Your task to perform on an android device: Open display settings Image 0: 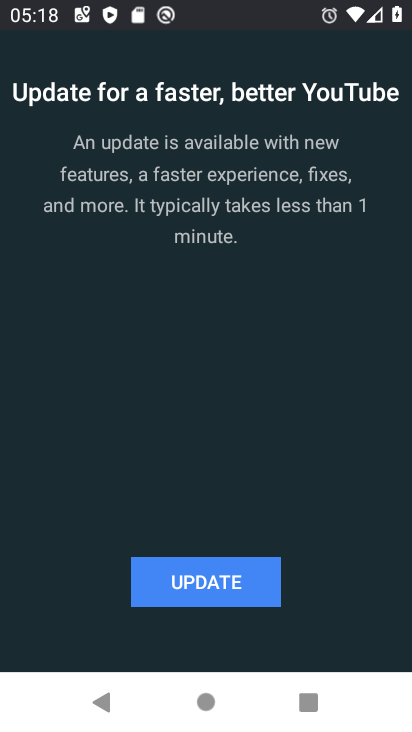
Step 0: press back button
Your task to perform on an android device: Open display settings Image 1: 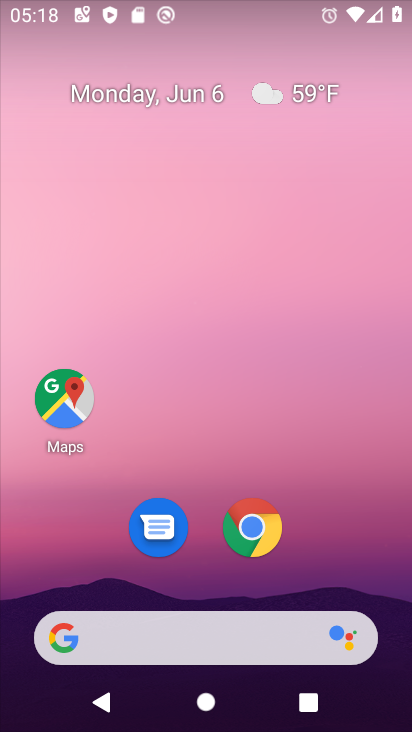
Step 1: drag from (390, 668) to (331, 84)
Your task to perform on an android device: Open display settings Image 2: 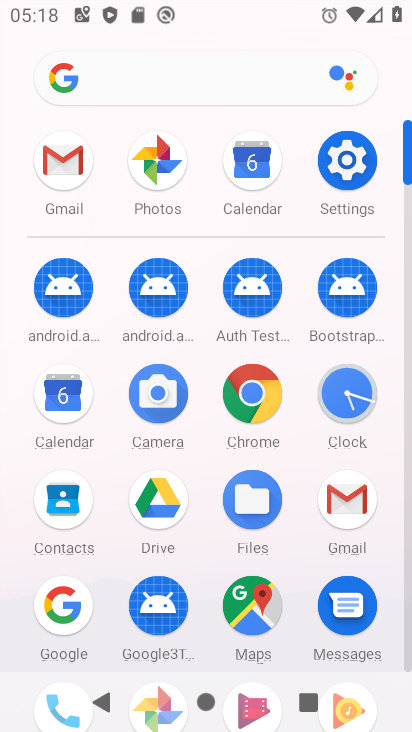
Step 2: click (340, 148)
Your task to perform on an android device: Open display settings Image 3: 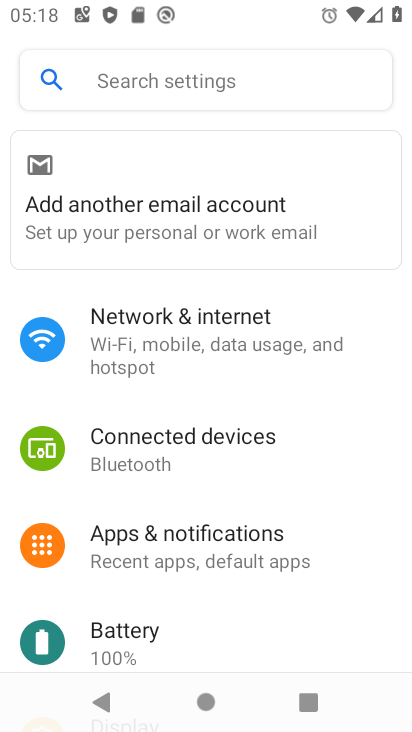
Step 3: click (143, 594)
Your task to perform on an android device: Open display settings Image 4: 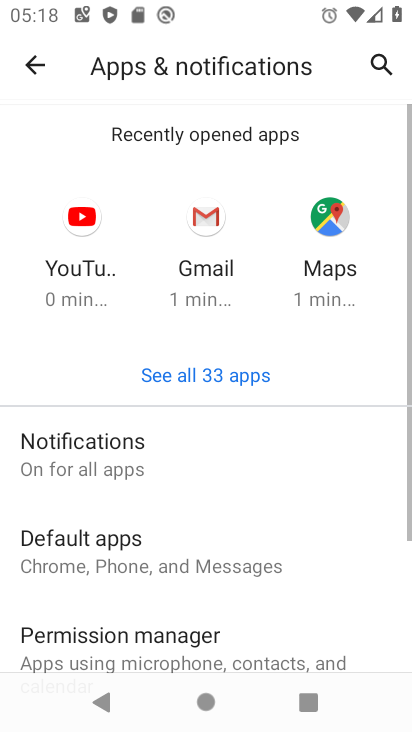
Step 4: click (39, 65)
Your task to perform on an android device: Open display settings Image 5: 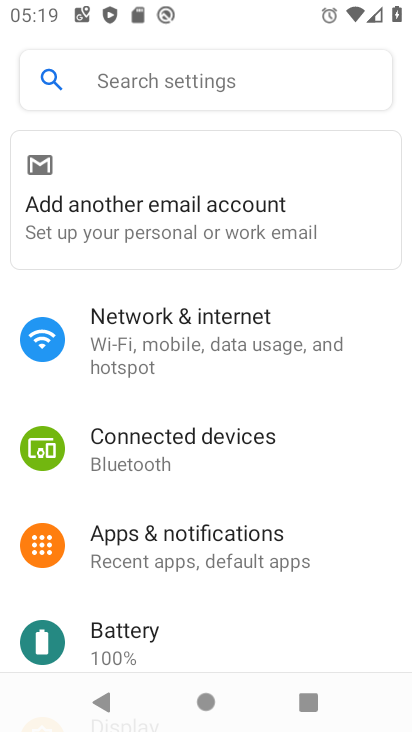
Step 5: drag from (261, 569) to (277, 275)
Your task to perform on an android device: Open display settings Image 6: 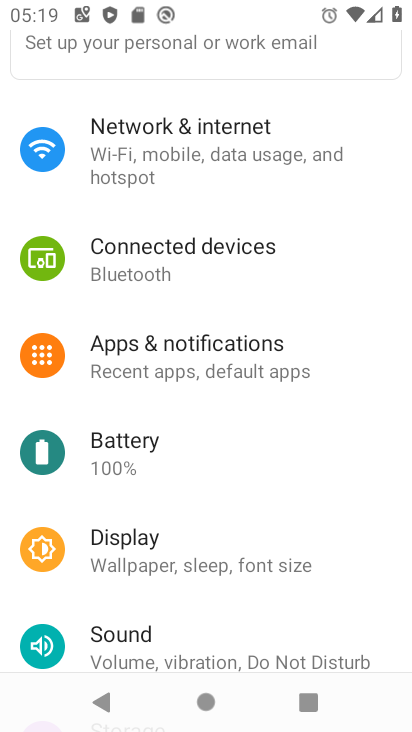
Step 6: click (143, 543)
Your task to perform on an android device: Open display settings Image 7: 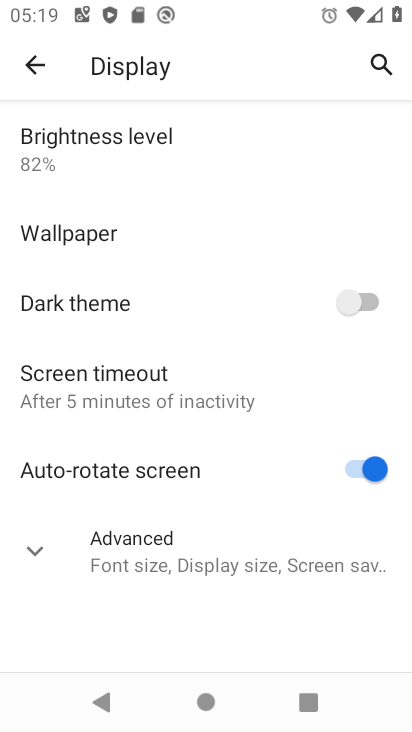
Step 7: task complete